Your task to perform on an android device: change the clock display to digital Image 0: 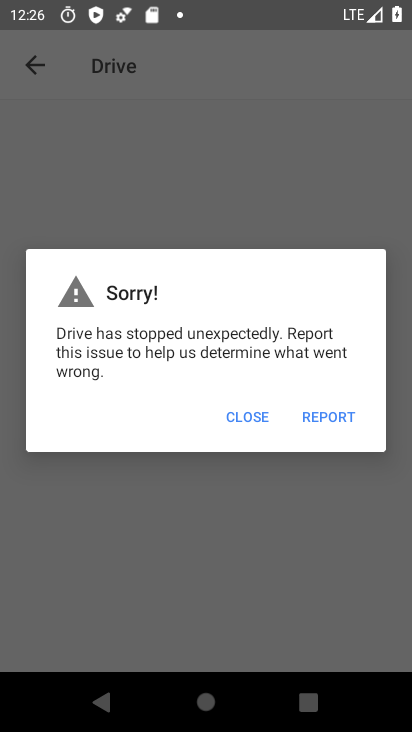
Step 0: press home button
Your task to perform on an android device: change the clock display to digital Image 1: 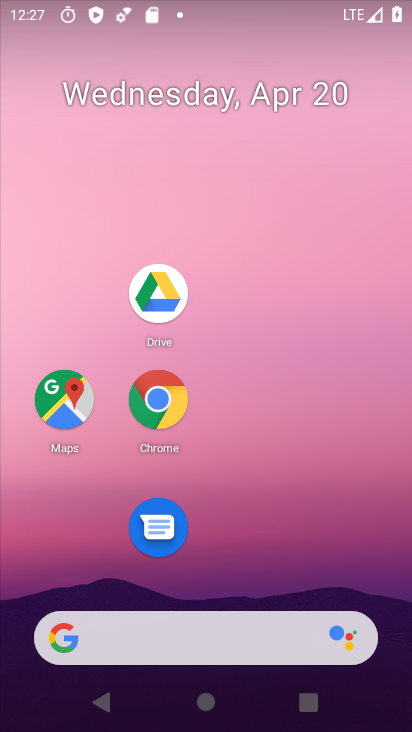
Step 1: drag from (286, 653) to (209, 211)
Your task to perform on an android device: change the clock display to digital Image 2: 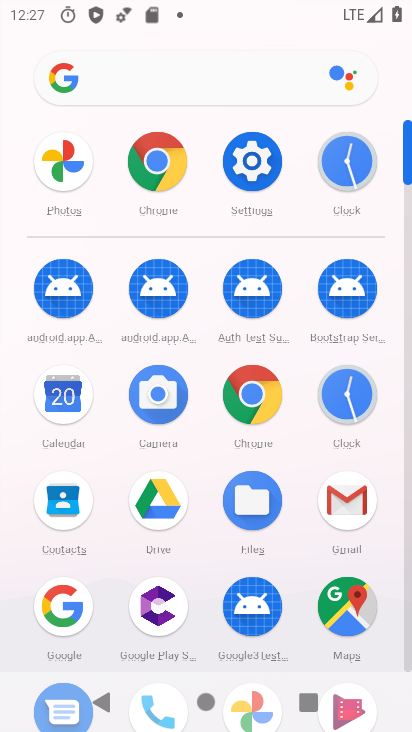
Step 2: click (341, 402)
Your task to perform on an android device: change the clock display to digital Image 3: 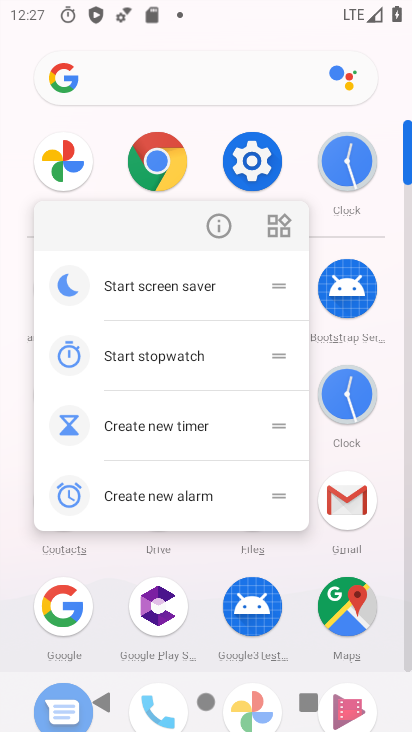
Step 3: click (348, 179)
Your task to perform on an android device: change the clock display to digital Image 4: 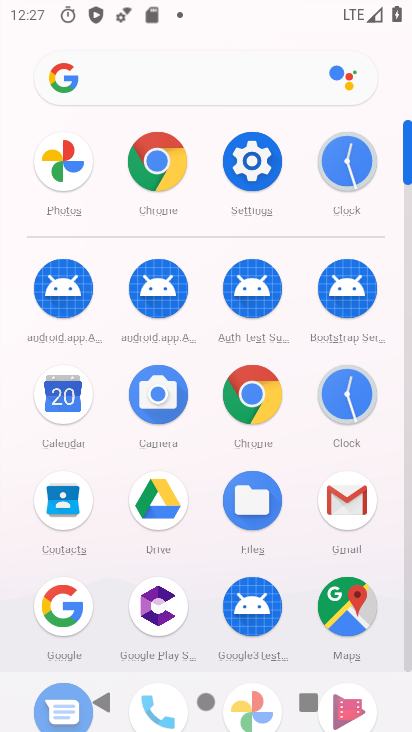
Step 4: click (344, 169)
Your task to perform on an android device: change the clock display to digital Image 5: 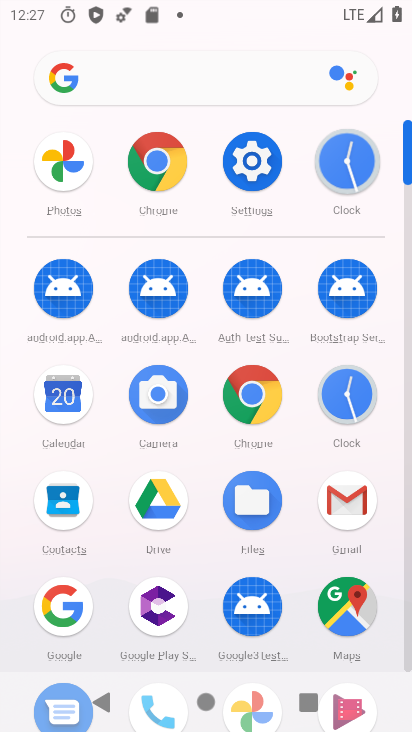
Step 5: click (345, 167)
Your task to perform on an android device: change the clock display to digital Image 6: 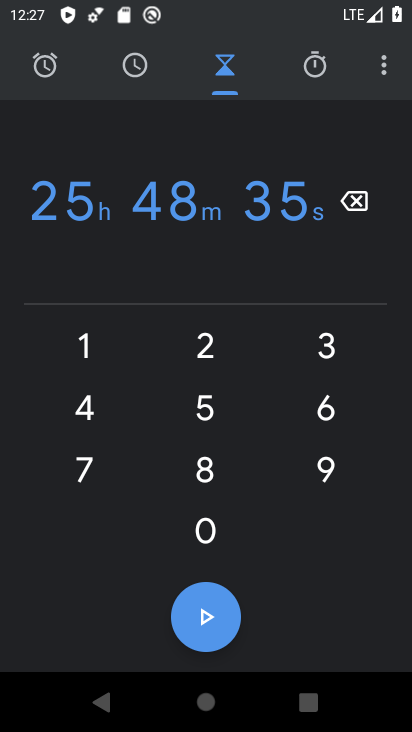
Step 6: click (384, 70)
Your task to perform on an android device: change the clock display to digital Image 7: 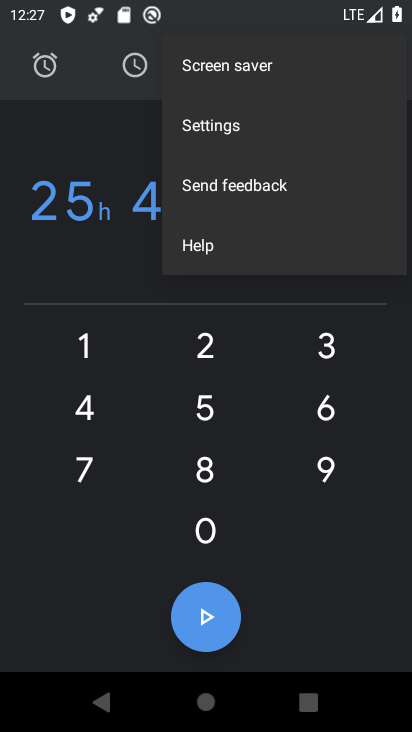
Step 7: click (239, 129)
Your task to perform on an android device: change the clock display to digital Image 8: 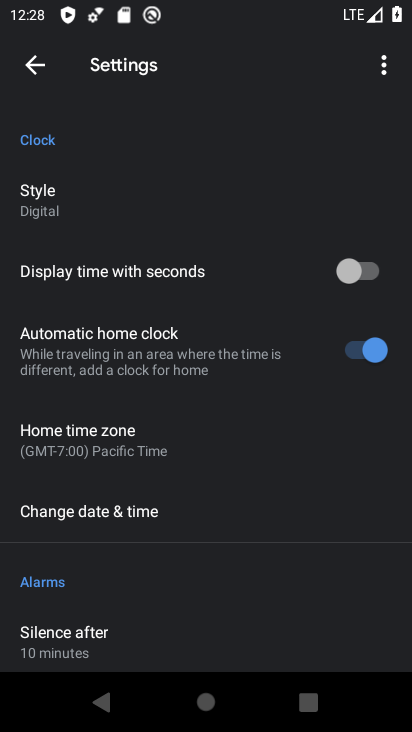
Step 8: click (39, 192)
Your task to perform on an android device: change the clock display to digital Image 9: 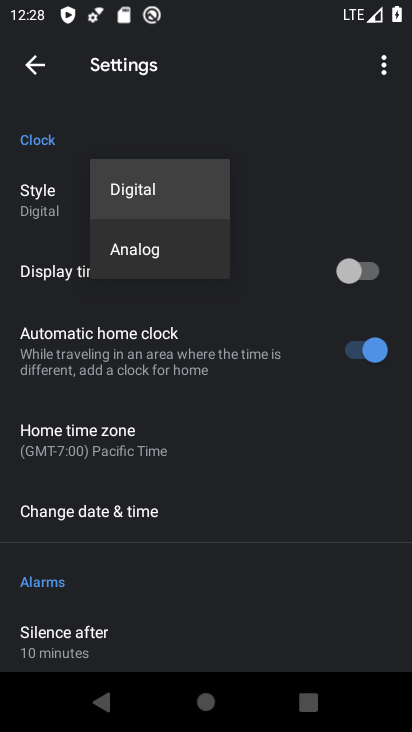
Step 9: click (134, 250)
Your task to perform on an android device: change the clock display to digital Image 10: 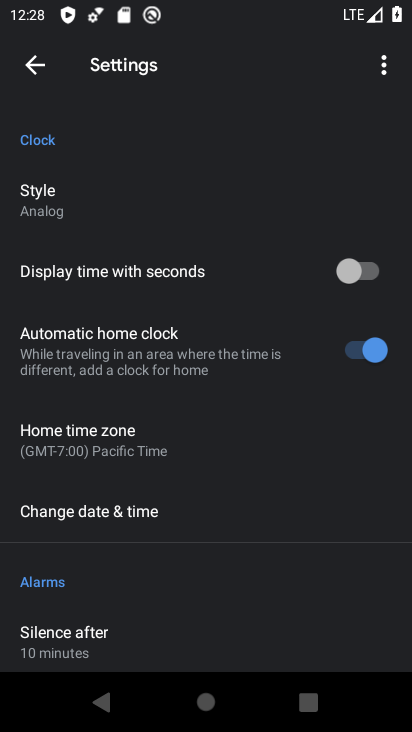
Step 10: task complete